Your task to perform on an android device: When is my next appointment? Image 0: 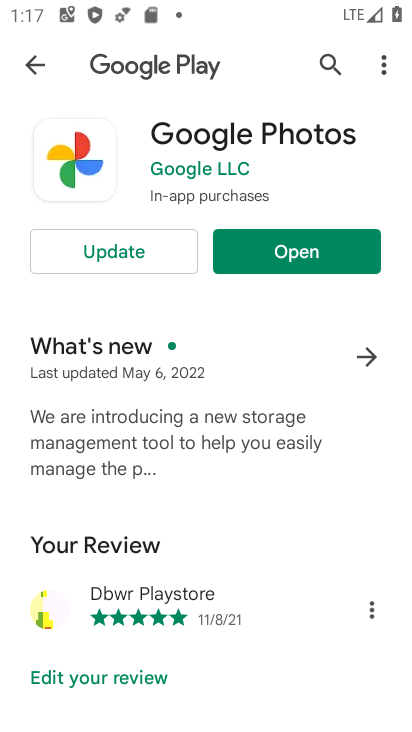
Step 0: press home button
Your task to perform on an android device: When is my next appointment? Image 1: 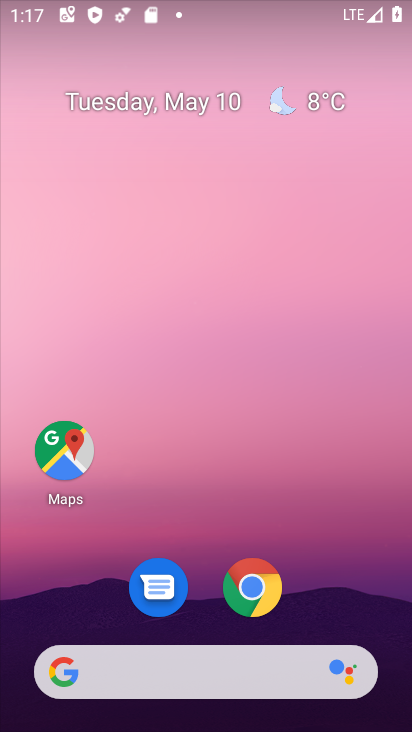
Step 1: drag from (308, 467) to (267, 137)
Your task to perform on an android device: When is my next appointment? Image 2: 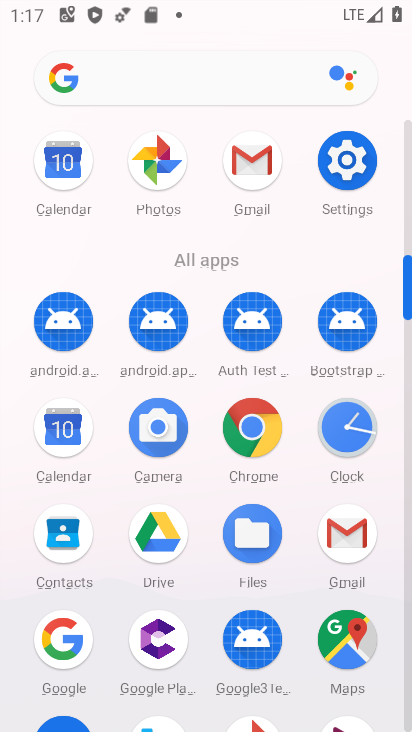
Step 2: click (34, 420)
Your task to perform on an android device: When is my next appointment? Image 3: 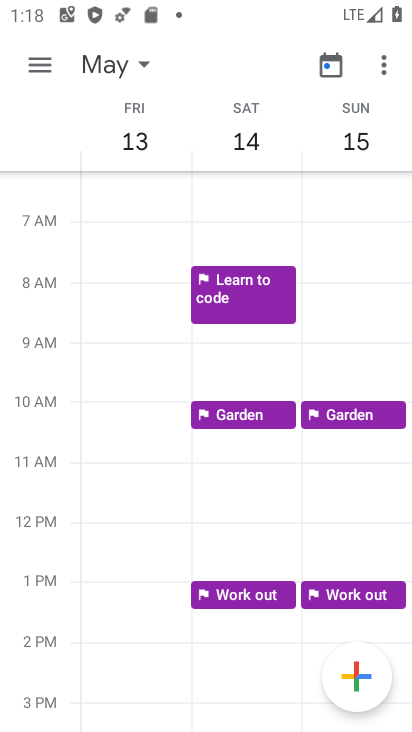
Step 3: click (46, 61)
Your task to perform on an android device: When is my next appointment? Image 4: 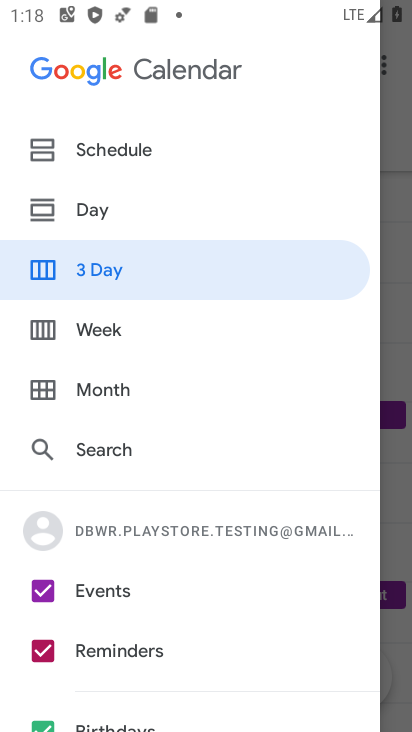
Step 4: click (96, 210)
Your task to perform on an android device: When is my next appointment? Image 5: 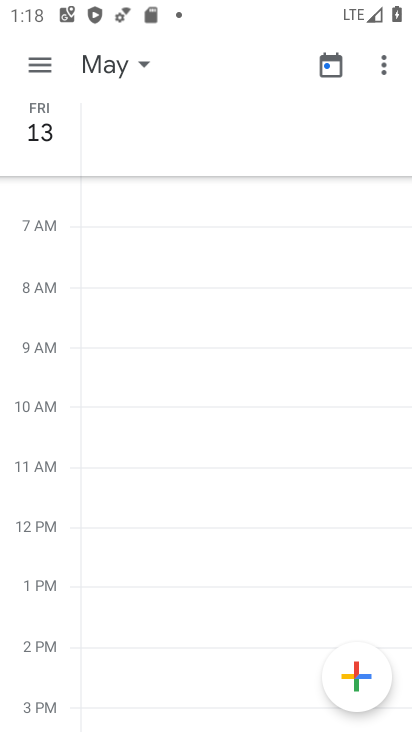
Step 5: click (128, 59)
Your task to perform on an android device: When is my next appointment? Image 6: 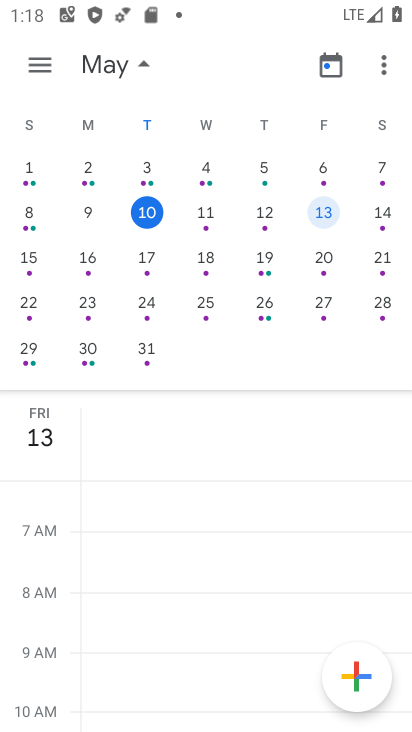
Step 6: click (51, 59)
Your task to perform on an android device: When is my next appointment? Image 7: 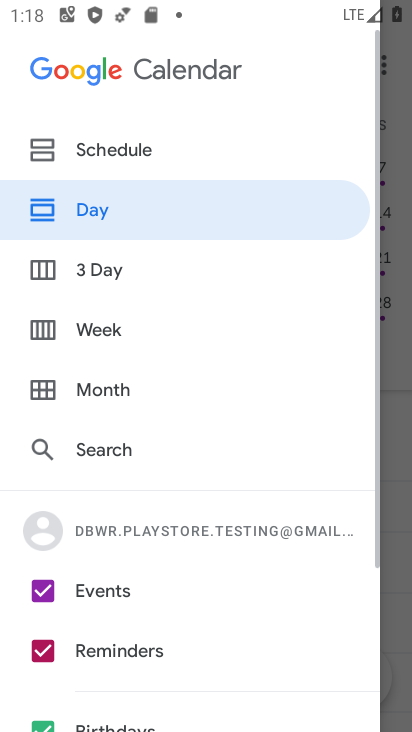
Step 7: click (91, 152)
Your task to perform on an android device: When is my next appointment? Image 8: 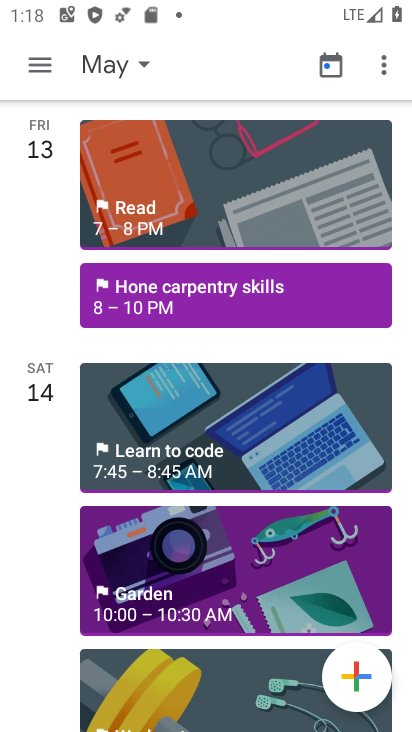
Step 8: drag from (162, 144) to (161, 456)
Your task to perform on an android device: When is my next appointment? Image 9: 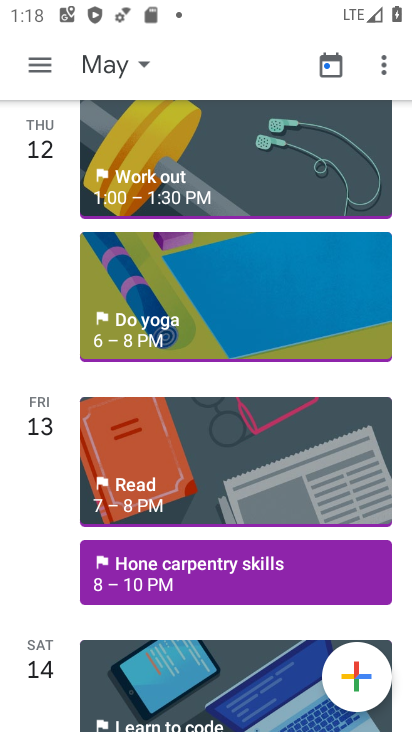
Step 9: drag from (197, 577) to (180, 276)
Your task to perform on an android device: When is my next appointment? Image 10: 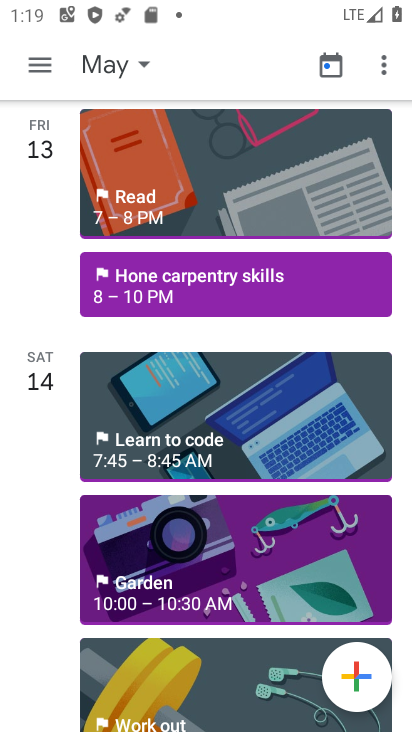
Step 10: drag from (191, 137) to (220, 551)
Your task to perform on an android device: When is my next appointment? Image 11: 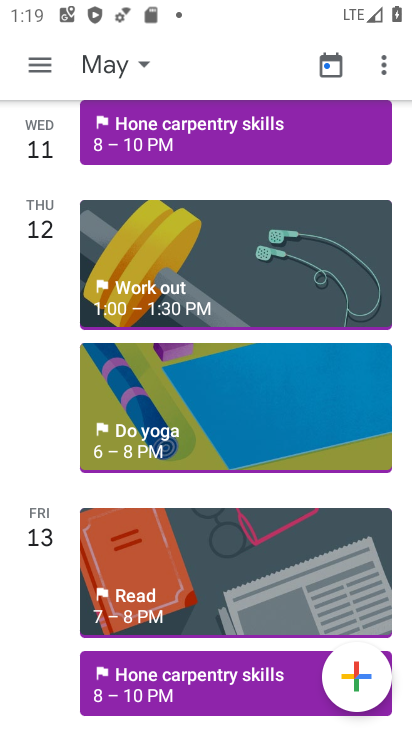
Step 11: drag from (186, 160) to (172, 568)
Your task to perform on an android device: When is my next appointment? Image 12: 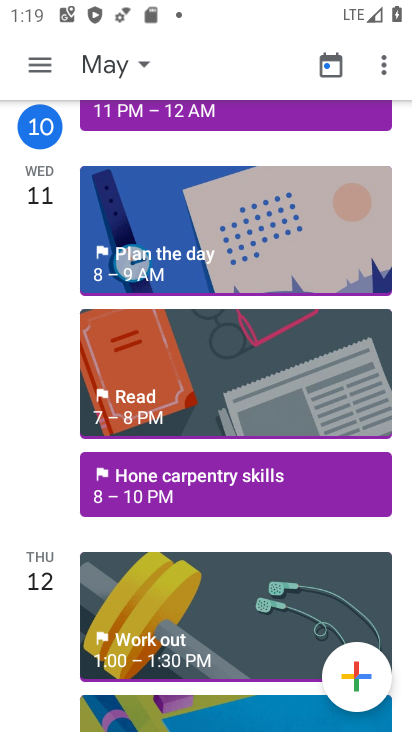
Step 12: drag from (157, 245) to (151, 645)
Your task to perform on an android device: When is my next appointment? Image 13: 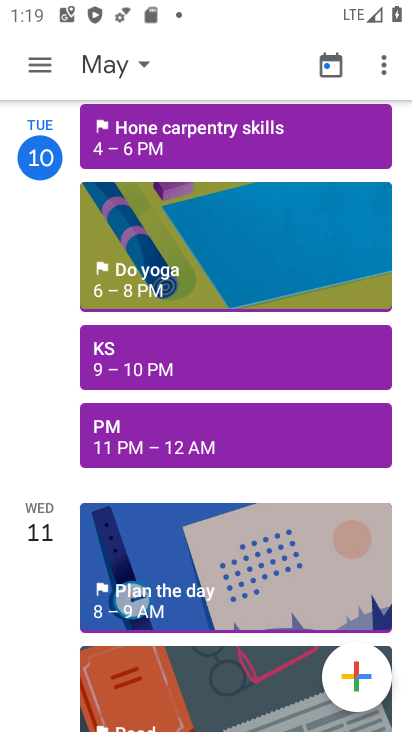
Step 13: click (156, 430)
Your task to perform on an android device: When is my next appointment? Image 14: 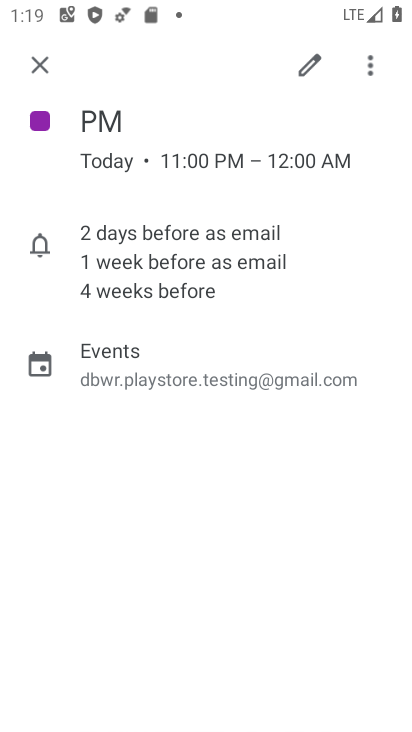
Step 14: click (31, 56)
Your task to perform on an android device: When is my next appointment? Image 15: 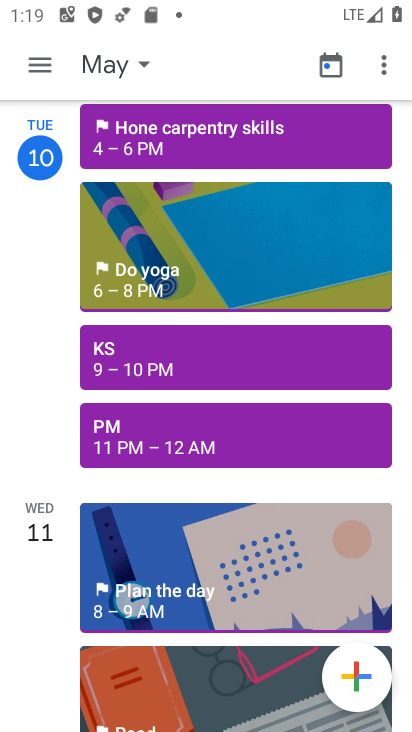
Step 15: click (135, 345)
Your task to perform on an android device: When is my next appointment? Image 16: 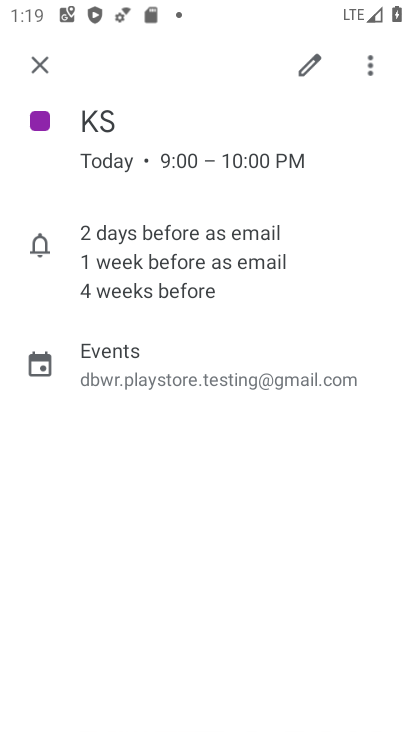
Step 16: task complete